Your task to perform on an android device: Search for seafood restaurants on Google Maps Image 0: 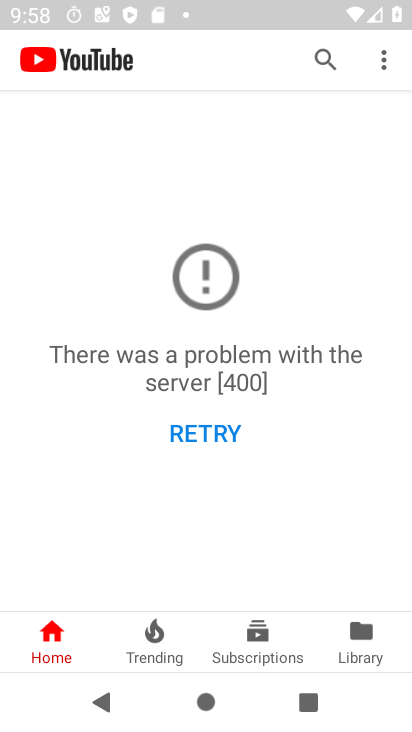
Step 0: press home button
Your task to perform on an android device: Search for seafood restaurants on Google Maps Image 1: 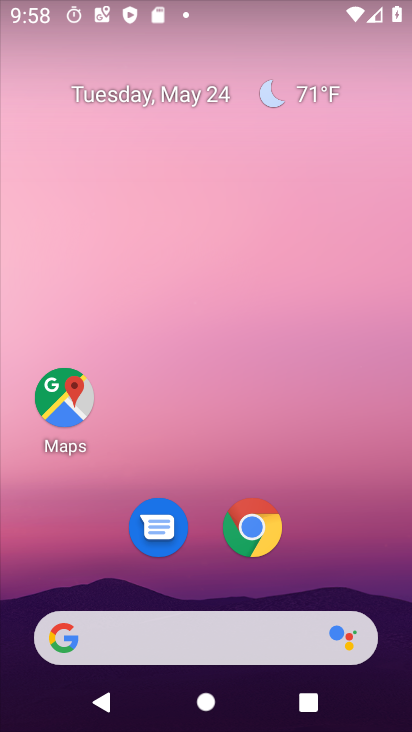
Step 1: click (66, 403)
Your task to perform on an android device: Search for seafood restaurants on Google Maps Image 2: 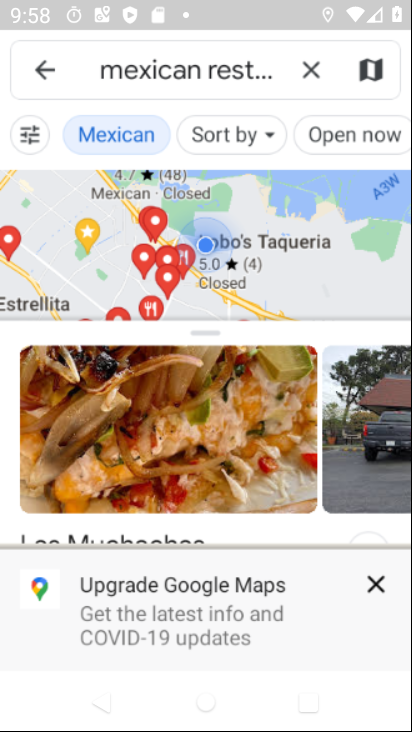
Step 2: click (309, 76)
Your task to perform on an android device: Search for seafood restaurants on Google Maps Image 3: 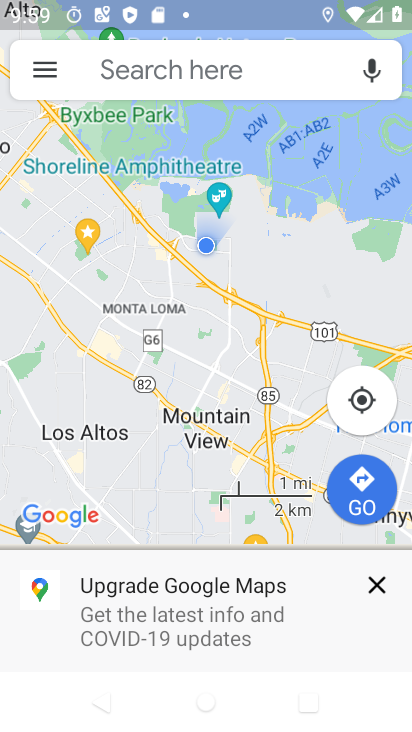
Step 3: click (180, 82)
Your task to perform on an android device: Search for seafood restaurants on Google Maps Image 4: 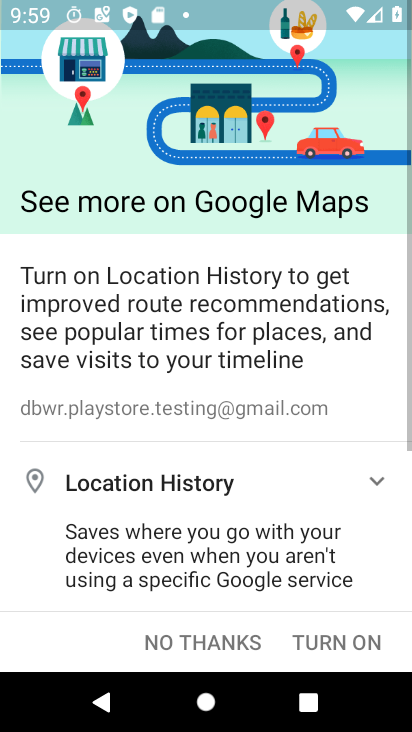
Step 4: click (194, 631)
Your task to perform on an android device: Search for seafood restaurants on Google Maps Image 5: 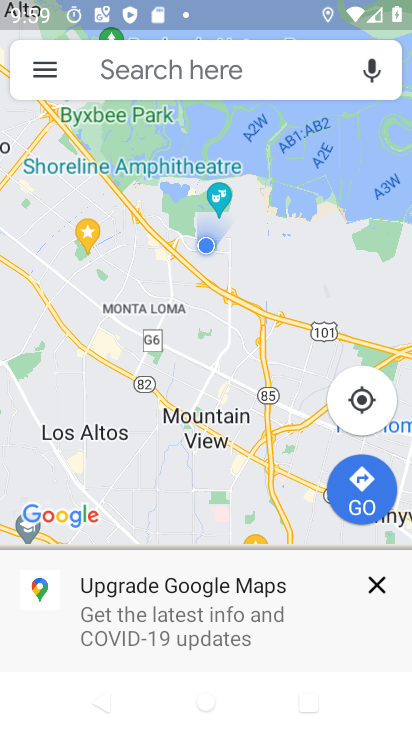
Step 5: click (173, 67)
Your task to perform on an android device: Search for seafood restaurants on Google Maps Image 6: 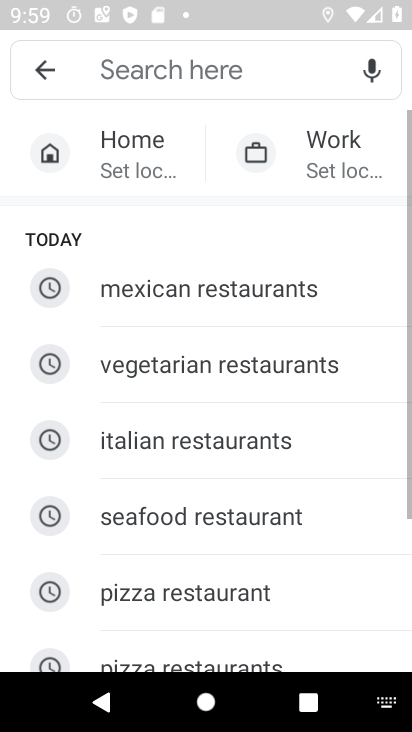
Step 6: drag from (189, 588) to (202, 415)
Your task to perform on an android device: Search for seafood restaurants on Google Maps Image 7: 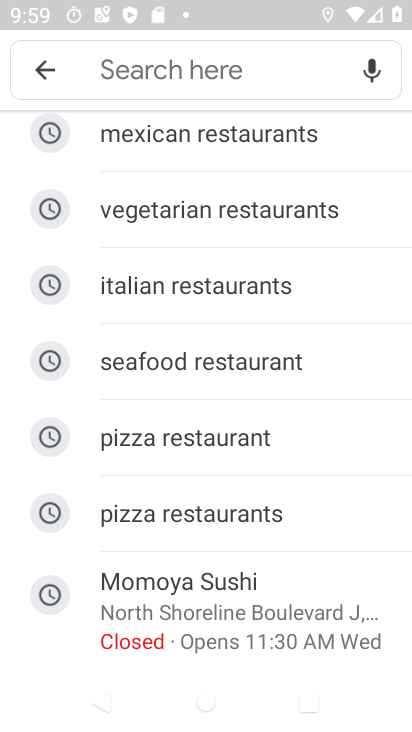
Step 7: click (203, 356)
Your task to perform on an android device: Search for seafood restaurants on Google Maps Image 8: 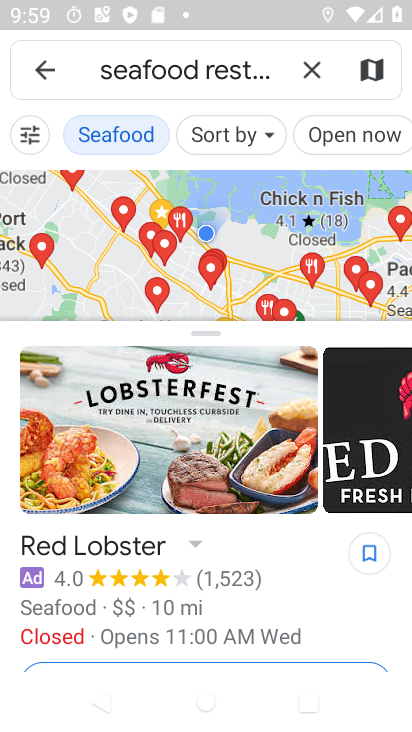
Step 8: task complete